Your task to perform on an android device: Go to network settings Image 0: 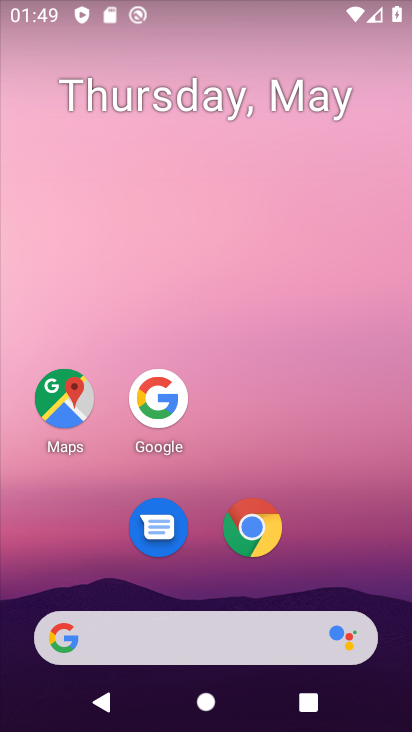
Step 0: drag from (187, 567) to (201, 34)
Your task to perform on an android device: Go to network settings Image 1: 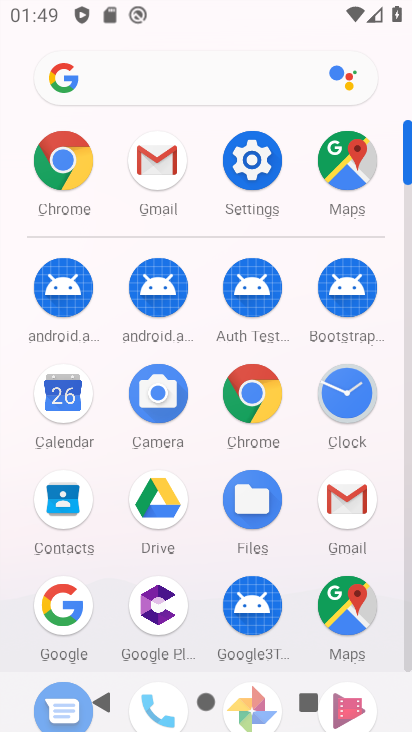
Step 1: click (252, 158)
Your task to perform on an android device: Go to network settings Image 2: 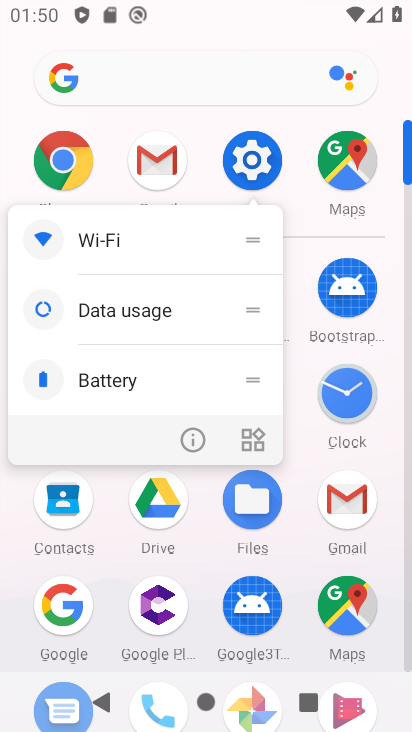
Step 2: click (190, 442)
Your task to perform on an android device: Go to network settings Image 3: 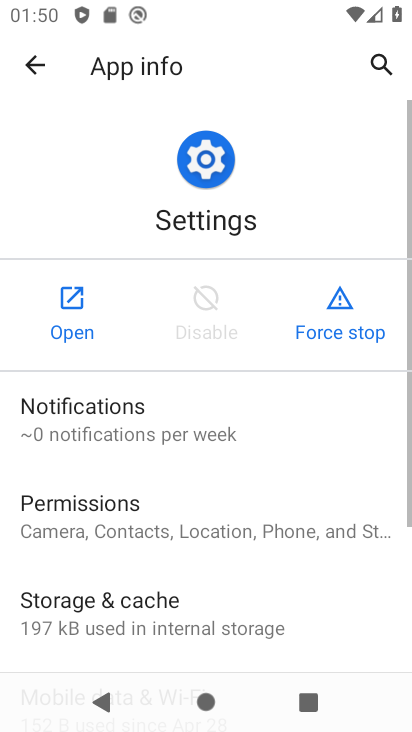
Step 3: click (71, 299)
Your task to perform on an android device: Go to network settings Image 4: 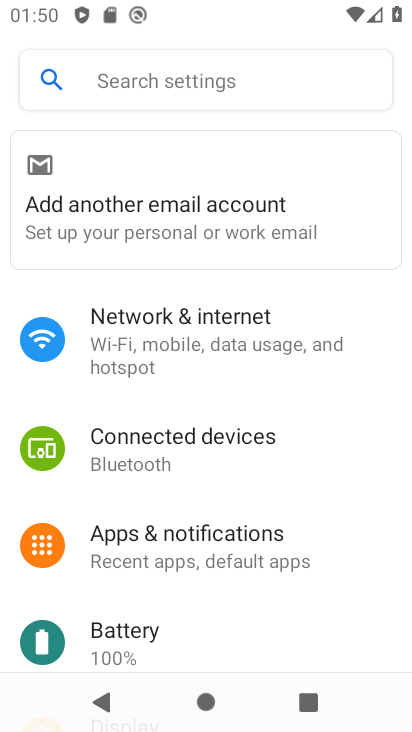
Step 4: click (212, 361)
Your task to perform on an android device: Go to network settings Image 5: 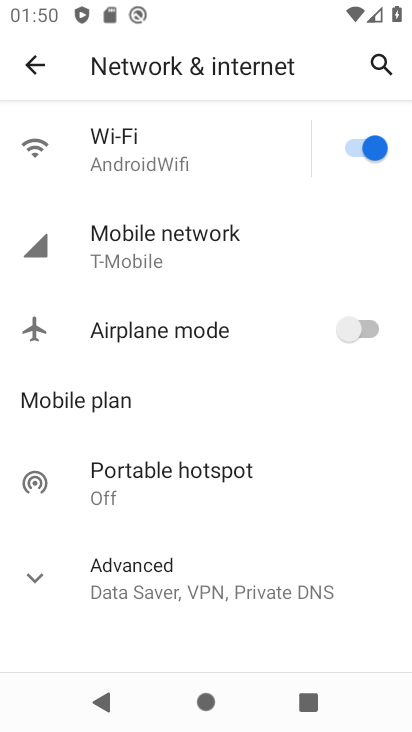
Step 5: task complete